Your task to perform on an android device: What is the news today? Image 0: 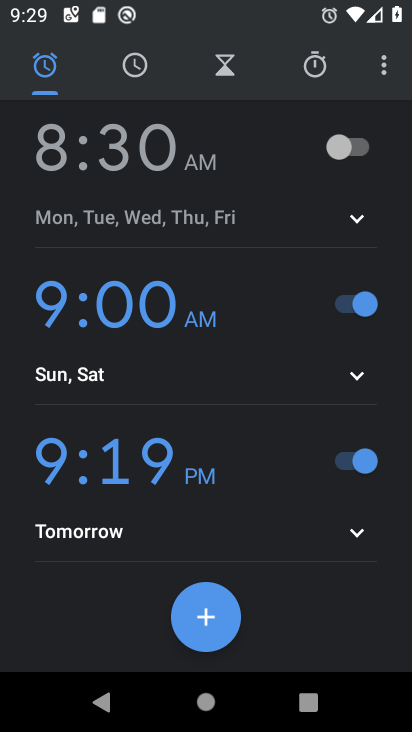
Step 0: press home button
Your task to perform on an android device: What is the news today? Image 1: 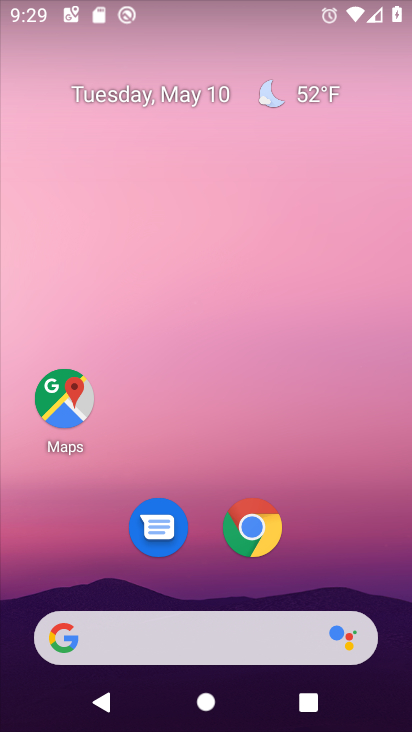
Step 1: click (259, 525)
Your task to perform on an android device: What is the news today? Image 2: 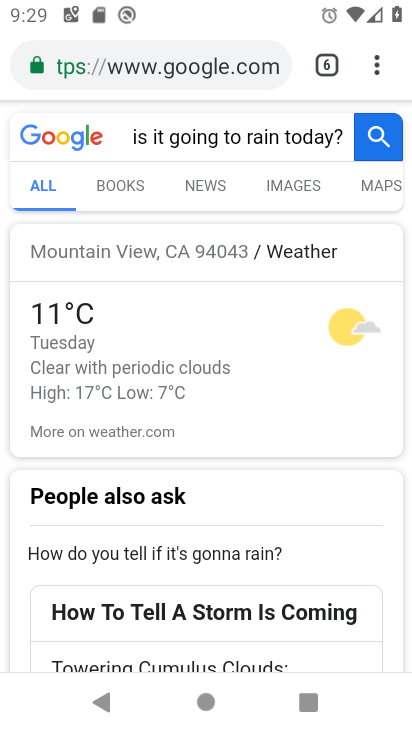
Step 2: click (319, 58)
Your task to perform on an android device: What is the news today? Image 3: 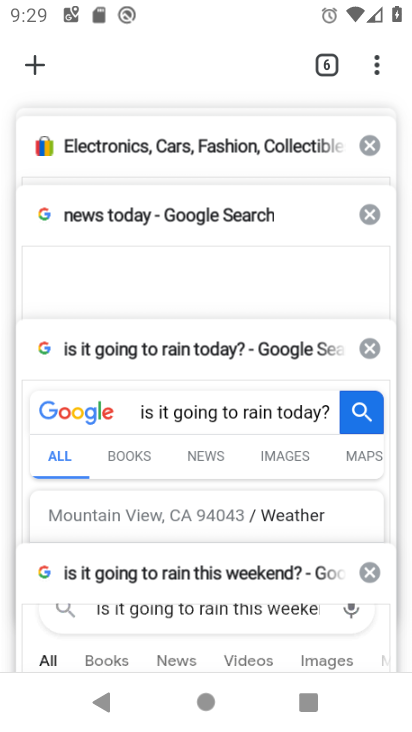
Step 3: click (151, 262)
Your task to perform on an android device: What is the news today? Image 4: 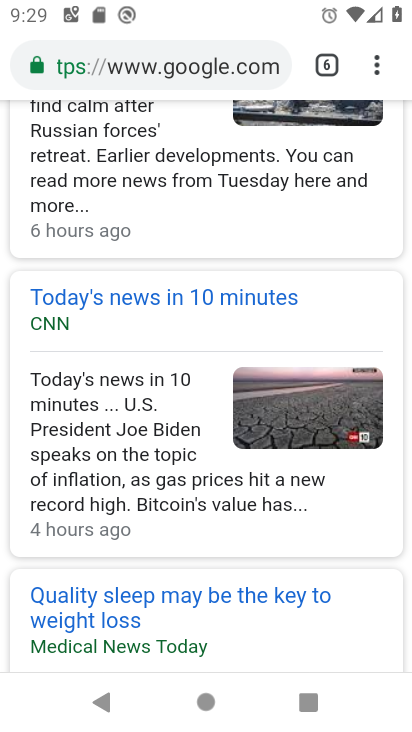
Step 4: task complete